Your task to perform on an android device: turn off javascript in the chrome app Image 0: 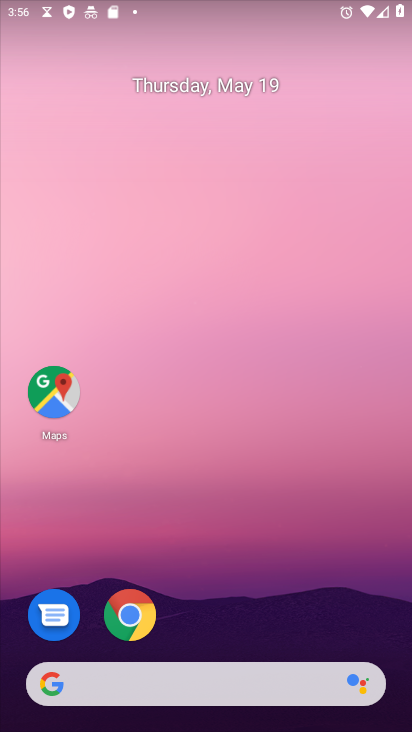
Step 0: drag from (309, 633) to (159, 123)
Your task to perform on an android device: turn off javascript in the chrome app Image 1: 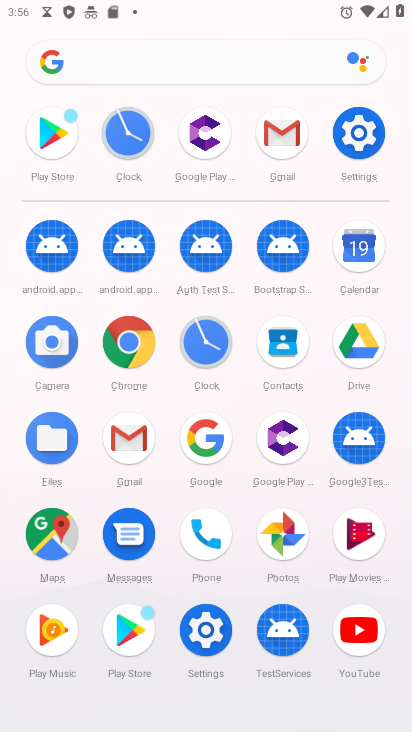
Step 1: click (129, 341)
Your task to perform on an android device: turn off javascript in the chrome app Image 2: 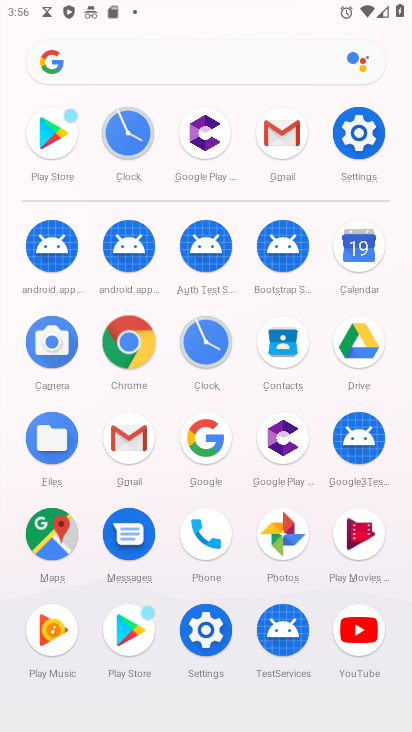
Step 2: click (130, 341)
Your task to perform on an android device: turn off javascript in the chrome app Image 3: 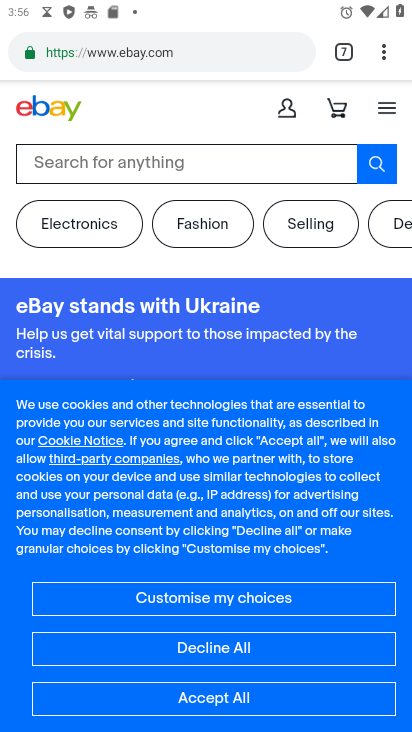
Step 3: drag from (386, 51) to (183, 627)
Your task to perform on an android device: turn off javascript in the chrome app Image 4: 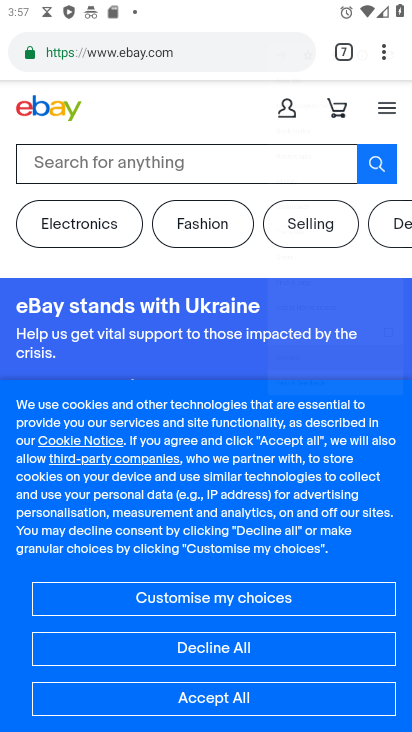
Step 4: click (183, 627)
Your task to perform on an android device: turn off javascript in the chrome app Image 5: 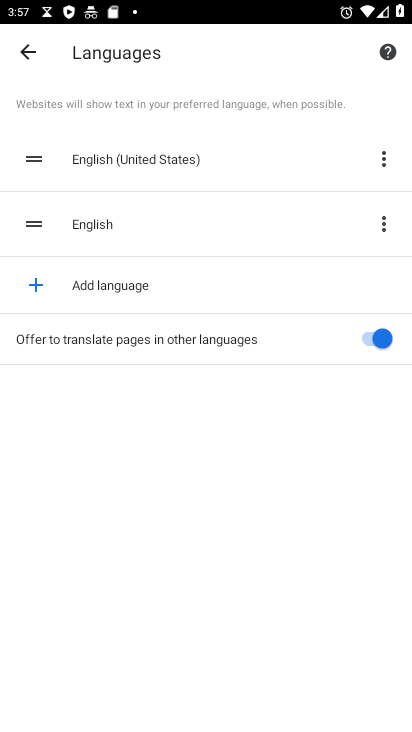
Step 5: click (378, 339)
Your task to perform on an android device: turn off javascript in the chrome app Image 6: 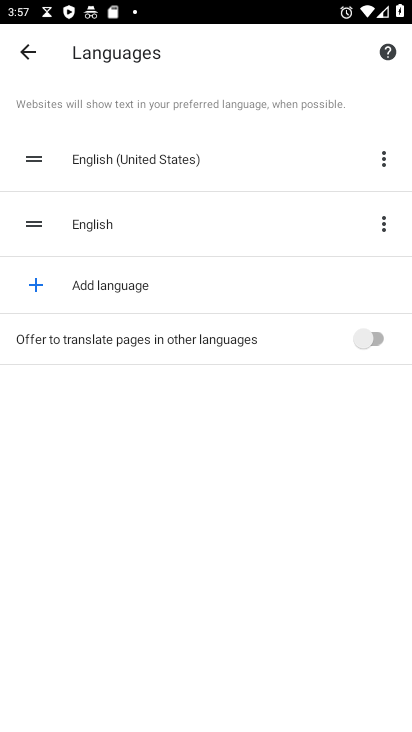
Step 6: task complete